Your task to perform on an android device: allow cookies in the chrome app Image 0: 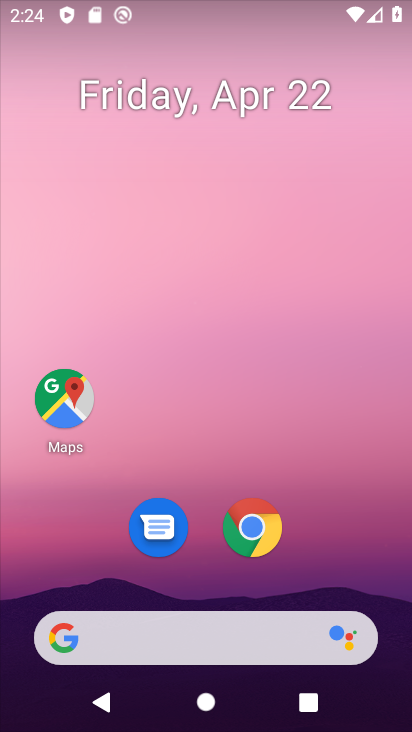
Step 0: drag from (391, 609) to (276, 163)
Your task to perform on an android device: allow cookies in the chrome app Image 1: 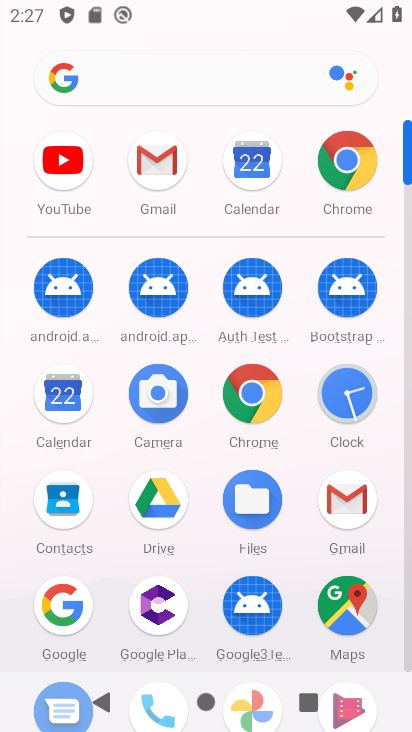
Step 1: click (340, 160)
Your task to perform on an android device: allow cookies in the chrome app Image 2: 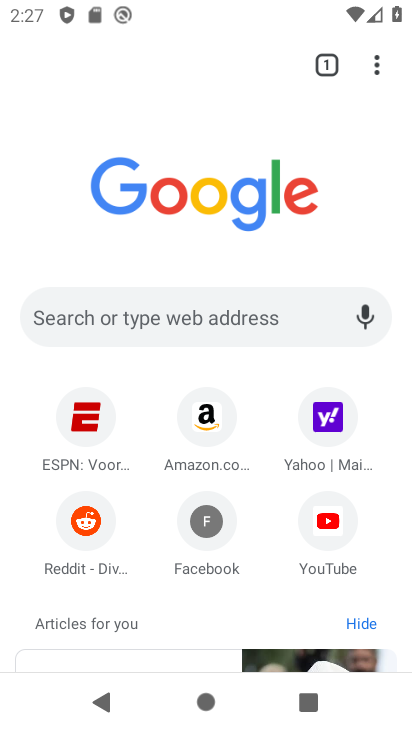
Step 2: click (371, 59)
Your task to perform on an android device: allow cookies in the chrome app Image 3: 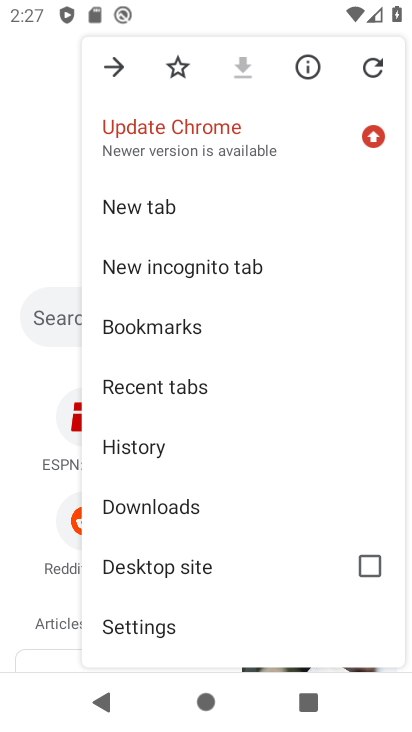
Step 3: click (237, 461)
Your task to perform on an android device: allow cookies in the chrome app Image 4: 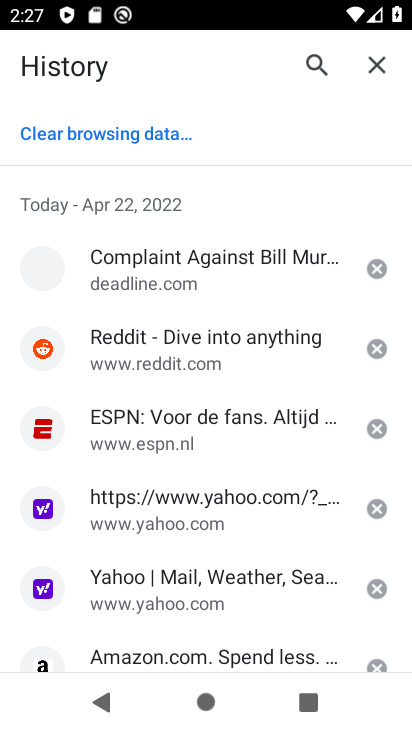
Step 4: click (147, 147)
Your task to perform on an android device: allow cookies in the chrome app Image 5: 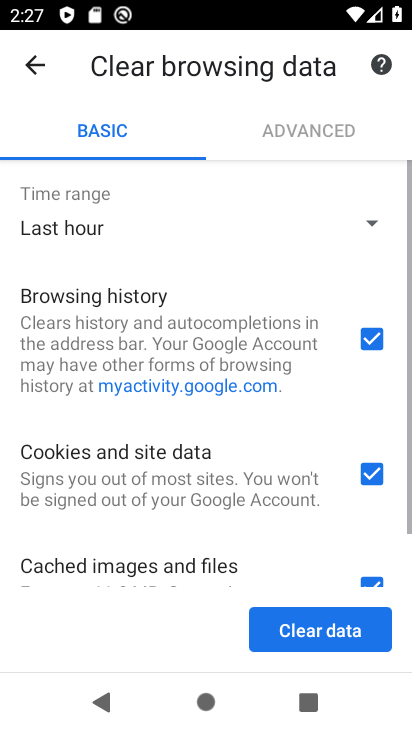
Step 5: click (348, 132)
Your task to perform on an android device: allow cookies in the chrome app Image 6: 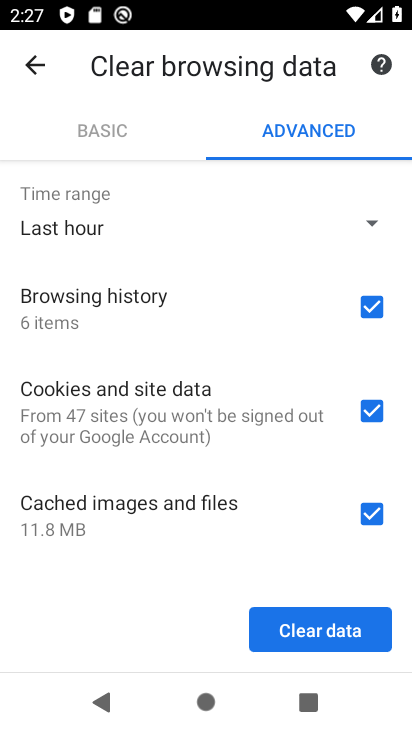
Step 6: task complete